Your task to perform on an android device: turn on the 12-hour format for clock Image 0: 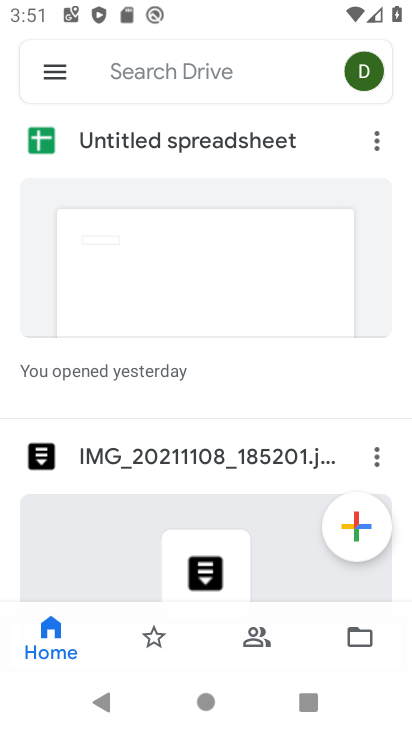
Step 0: press home button
Your task to perform on an android device: turn on the 12-hour format for clock Image 1: 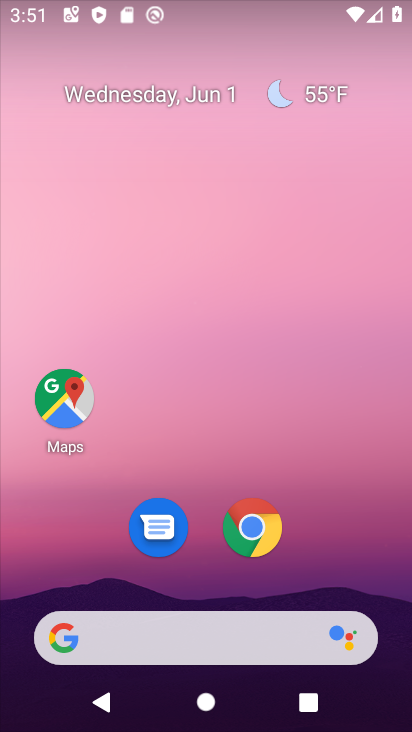
Step 1: drag from (349, 529) to (323, 34)
Your task to perform on an android device: turn on the 12-hour format for clock Image 2: 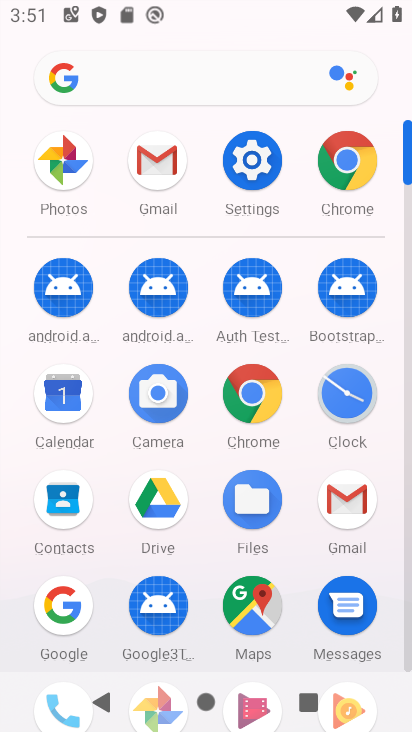
Step 2: click (350, 387)
Your task to perform on an android device: turn on the 12-hour format for clock Image 3: 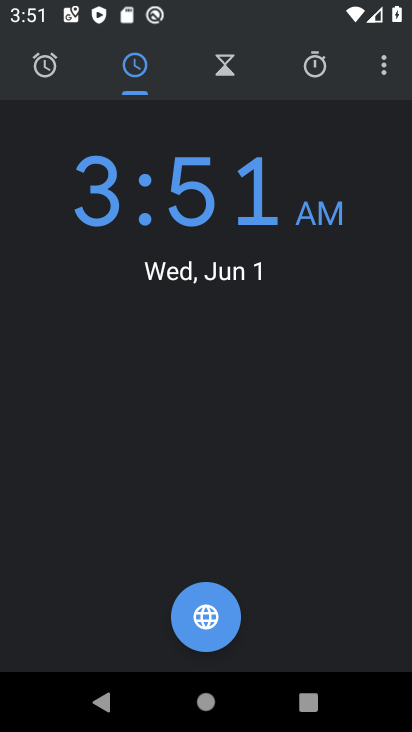
Step 3: click (391, 67)
Your task to perform on an android device: turn on the 12-hour format for clock Image 4: 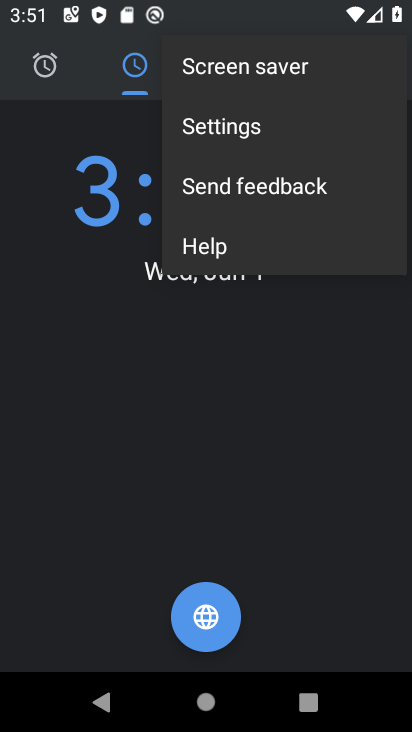
Step 4: click (276, 125)
Your task to perform on an android device: turn on the 12-hour format for clock Image 5: 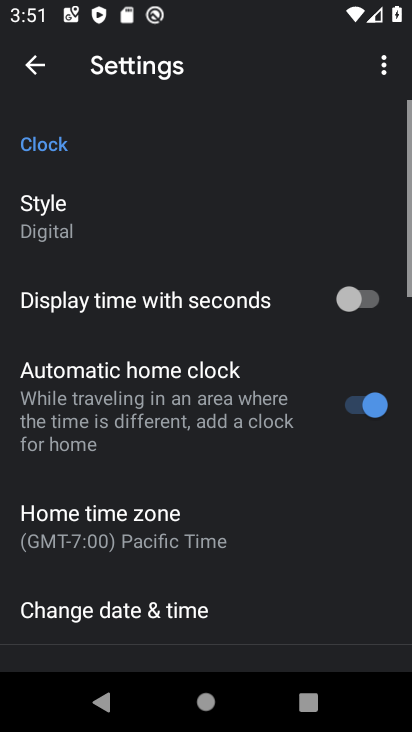
Step 5: drag from (305, 503) to (317, 115)
Your task to perform on an android device: turn on the 12-hour format for clock Image 6: 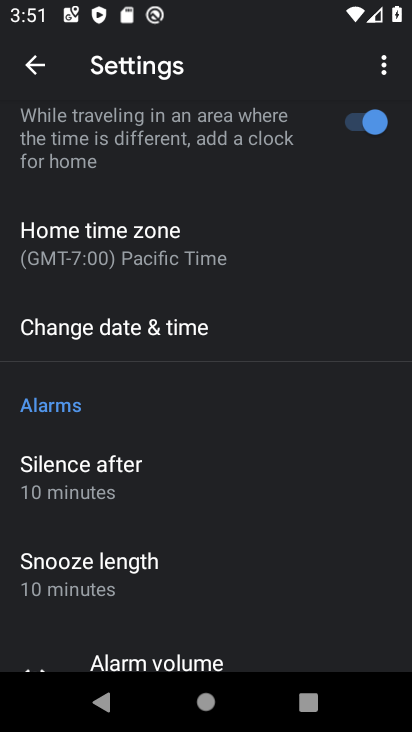
Step 6: drag from (250, 568) to (295, 144)
Your task to perform on an android device: turn on the 12-hour format for clock Image 7: 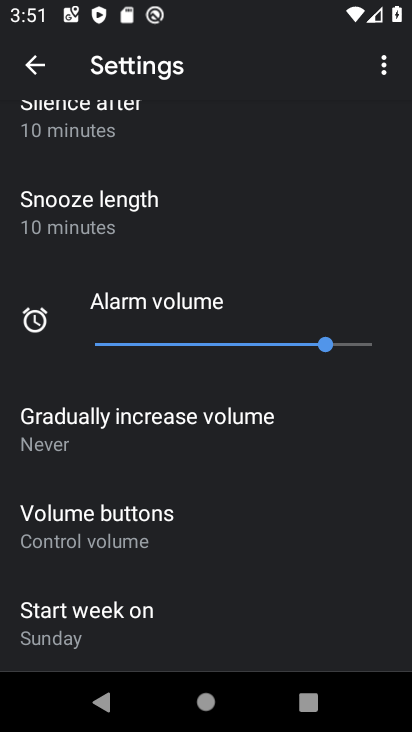
Step 7: drag from (254, 151) to (176, 569)
Your task to perform on an android device: turn on the 12-hour format for clock Image 8: 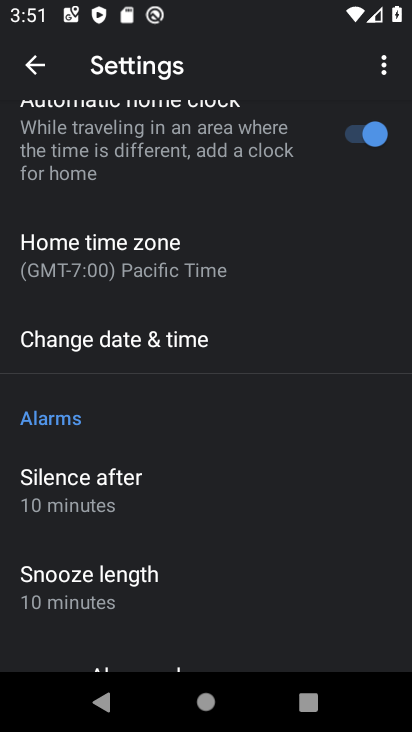
Step 8: click (98, 348)
Your task to perform on an android device: turn on the 12-hour format for clock Image 9: 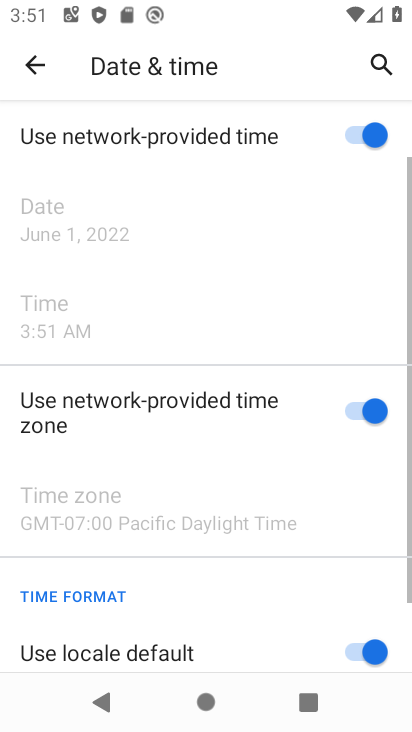
Step 9: task complete